Your task to perform on an android device: Open eBay Image 0: 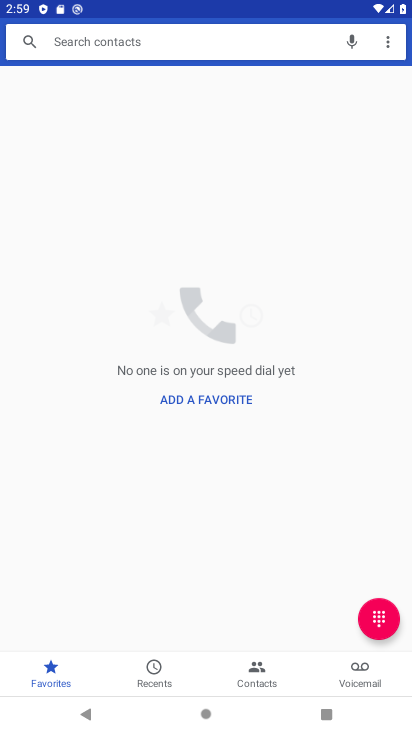
Step 0: press back button
Your task to perform on an android device: Open eBay Image 1: 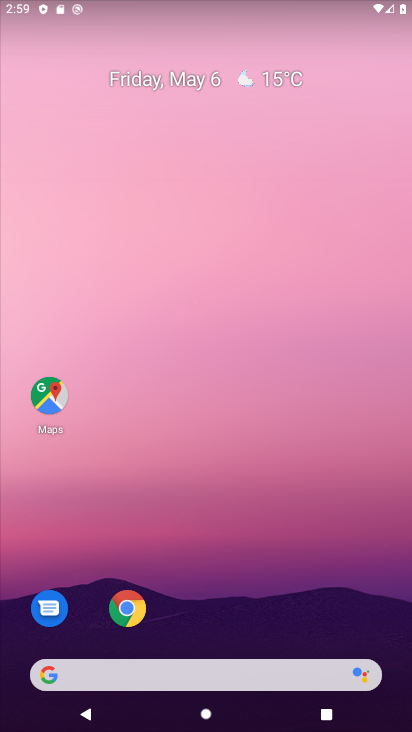
Step 1: click (130, 612)
Your task to perform on an android device: Open eBay Image 2: 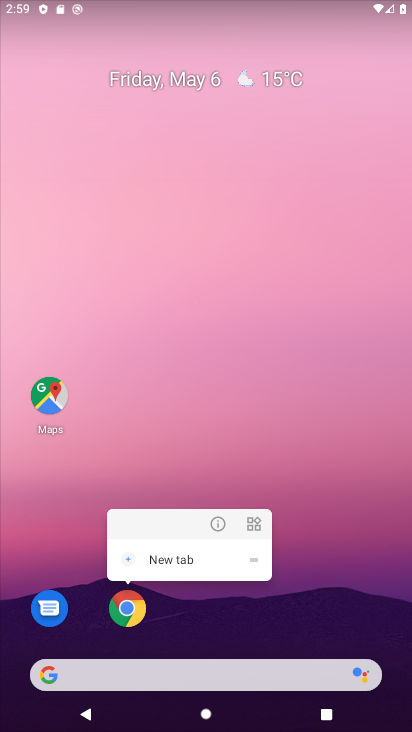
Step 2: click (130, 611)
Your task to perform on an android device: Open eBay Image 3: 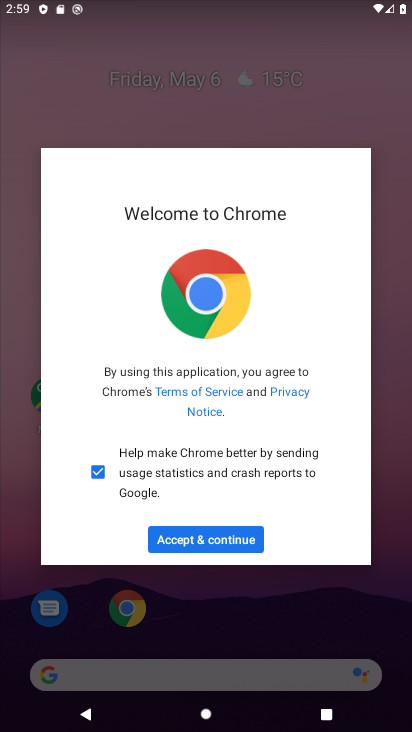
Step 3: click (233, 551)
Your task to perform on an android device: Open eBay Image 4: 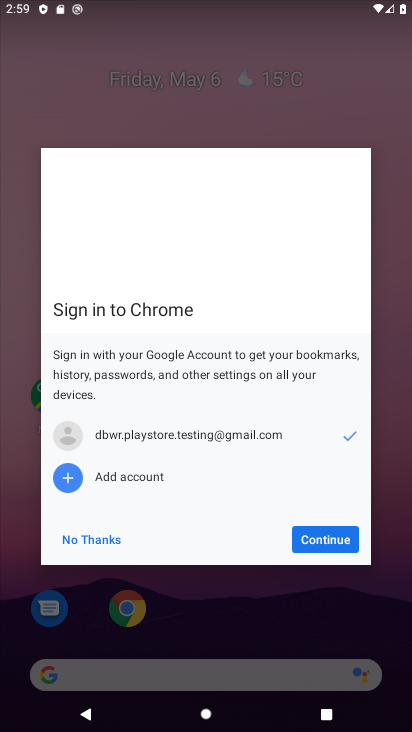
Step 4: click (303, 542)
Your task to perform on an android device: Open eBay Image 5: 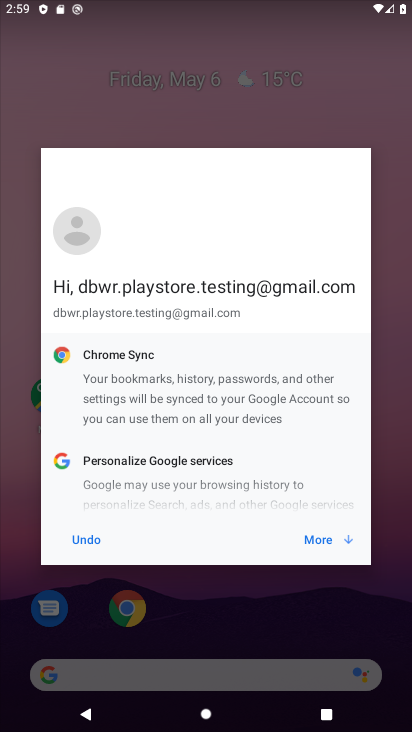
Step 5: click (321, 543)
Your task to perform on an android device: Open eBay Image 6: 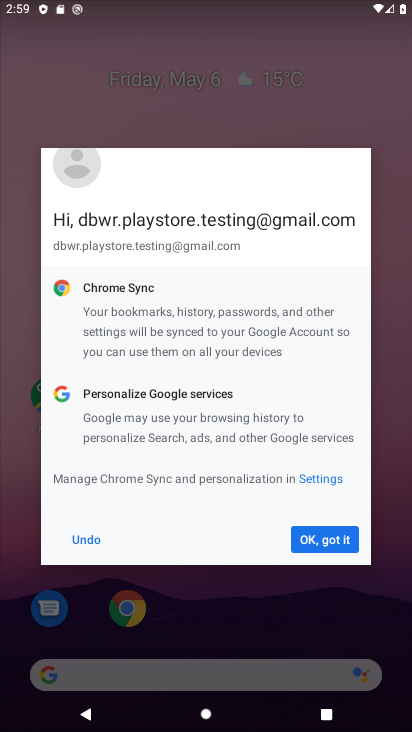
Step 6: click (322, 544)
Your task to perform on an android device: Open eBay Image 7: 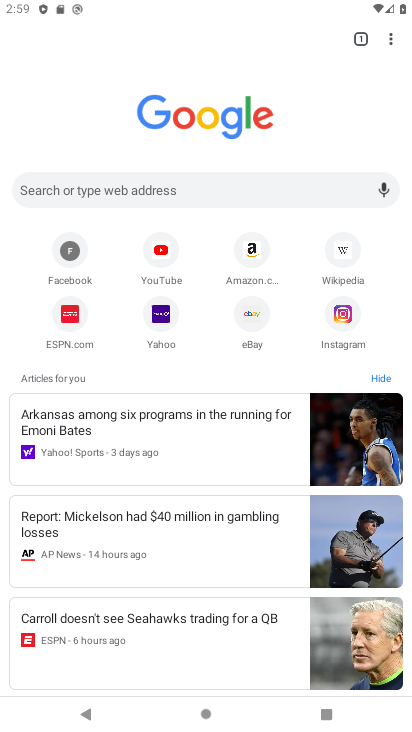
Step 7: click (254, 324)
Your task to perform on an android device: Open eBay Image 8: 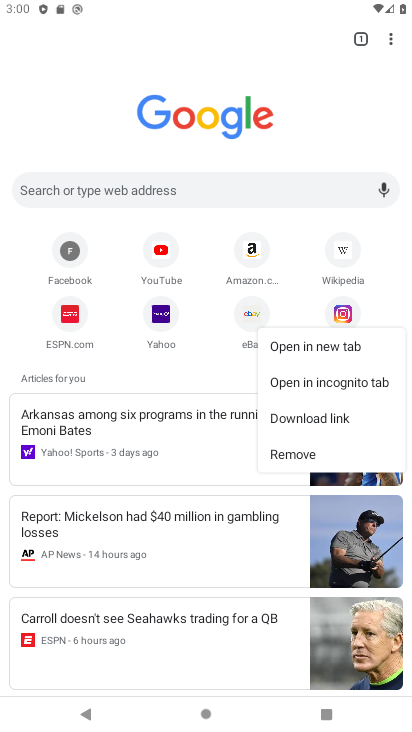
Step 8: click (246, 317)
Your task to perform on an android device: Open eBay Image 9: 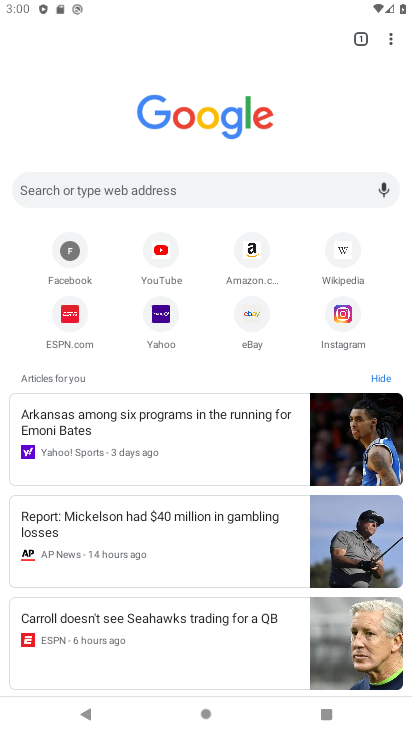
Step 9: click (246, 320)
Your task to perform on an android device: Open eBay Image 10: 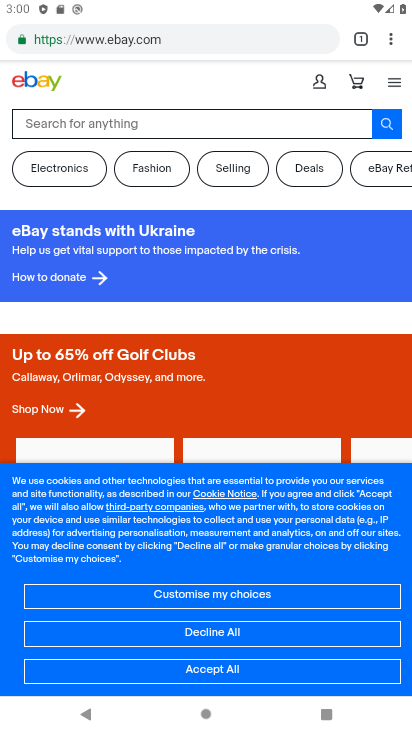
Step 10: click (258, 673)
Your task to perform on an android device: Open eBay Image 11: 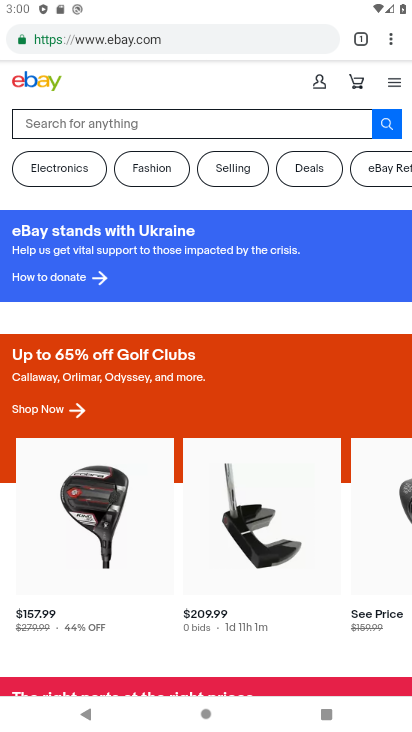
Step 11: task complete